Your task to perform on an android device: Open the Play Movies app and select the watchlist tab. Image 0: 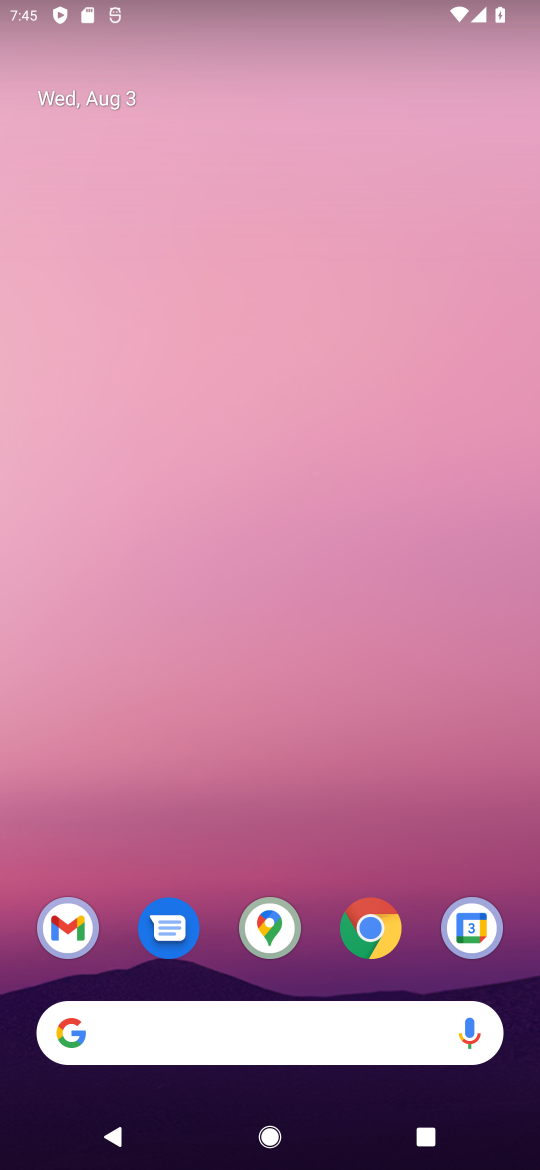
Step 0: drag from (427, 873) to (379, 2)
Your task to perform on an android device: Open the Play Movies app and select the watchlist tab. Image 1: 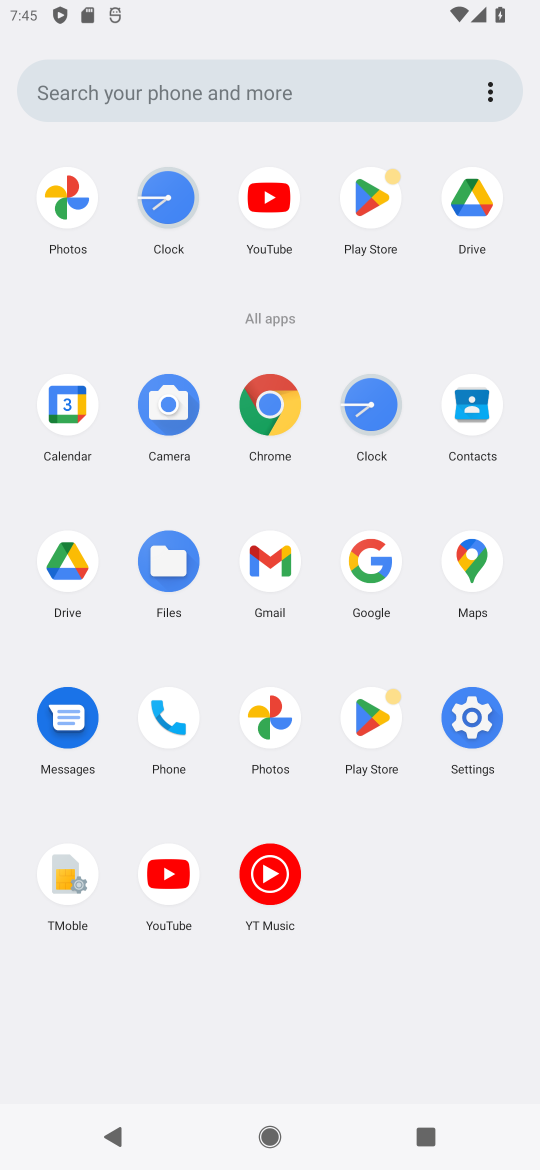
Step 1: task complete